Your task to perform on an android device: Open the map Image 0: 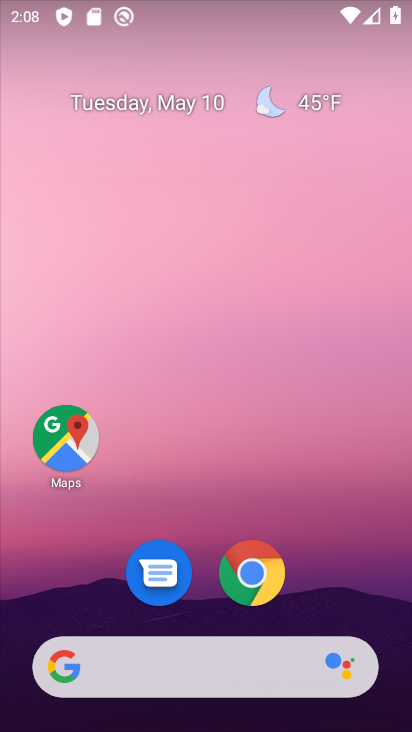
Step 0: click (50, 418)
Your task to perform on an android device: Open the map Image 1: 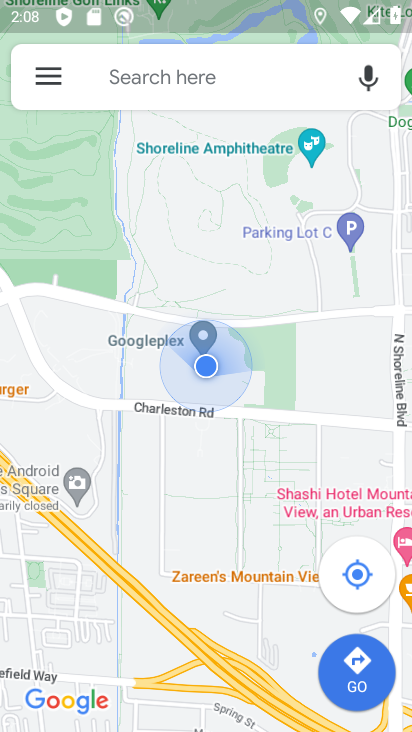
Step 1: task complete